Your task to perform on an android device: What's the weather going to be tomorrow? Image 0: 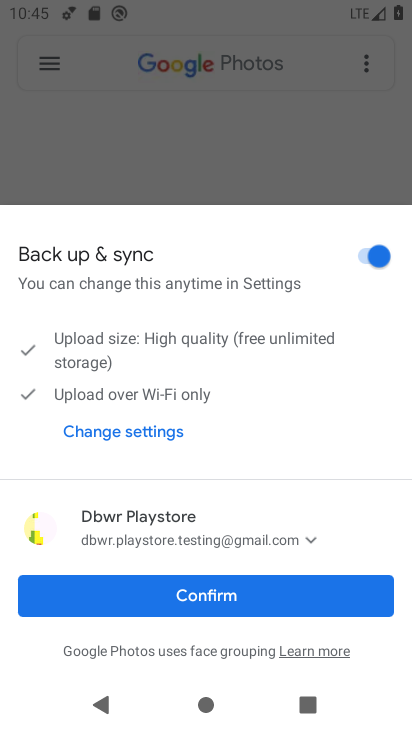
Step 0: press home button
Your task to perform on an android device: What's the weather going to be tomorrow? Image 1: 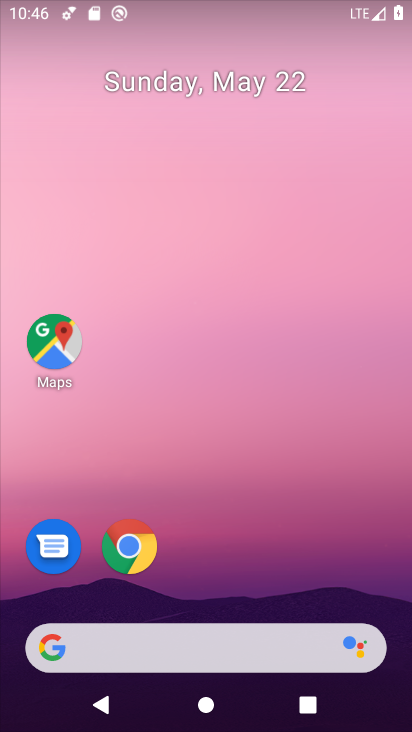
Step 1: drag from (217, 632) to (7, 483)
Your task to perform on an android device: What's the weather going to be tomorrow? Image 2: 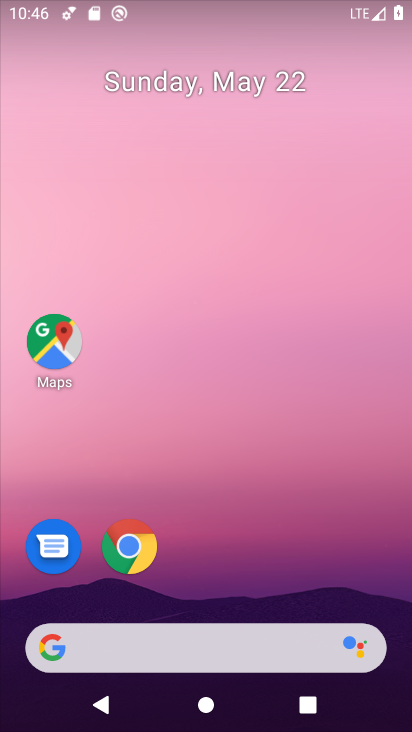
Step 2: drag from (239, 653) to (299, 34)
Your task to perform on an android device: What's the weather going to be tomorrow? Image 3: 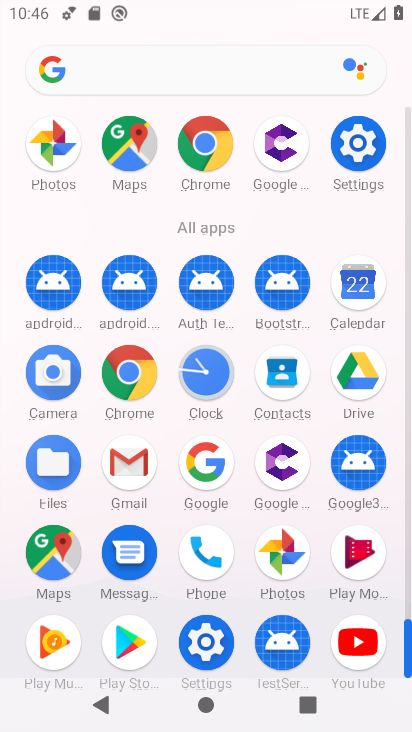
Step 3: click (222, 470)
Your task to perform on an android device: What's the weather going to be tomorrow? Image 4: 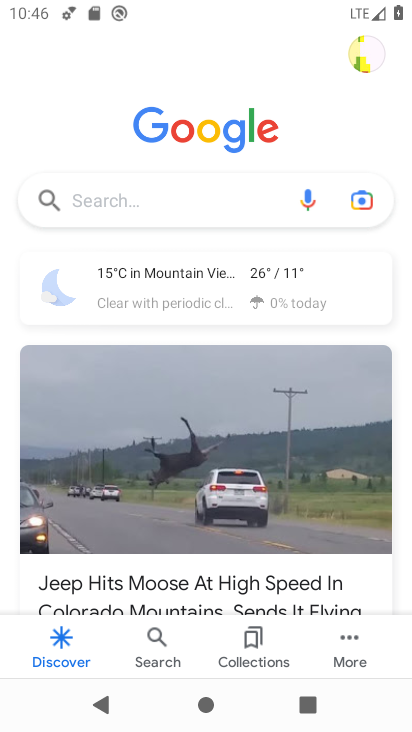
Step 4: click (201, 200)
Your task to perform on an android device: What's the weather going to be tomorrow? Image 5: 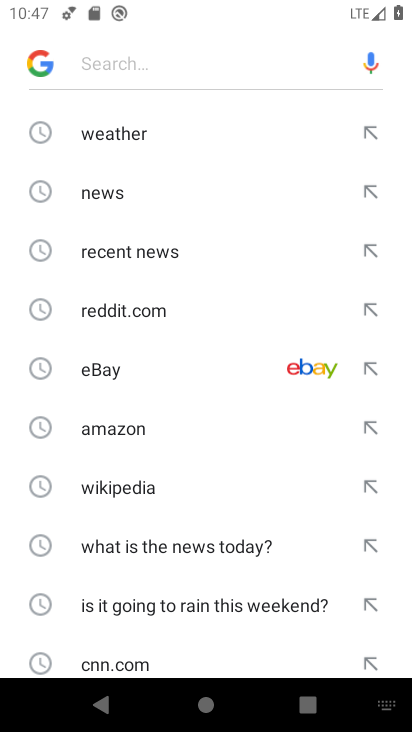
Step 5: click (270, 135)
Your task to perform on an android device: What's the weather going to be tomorrow? Image 6: 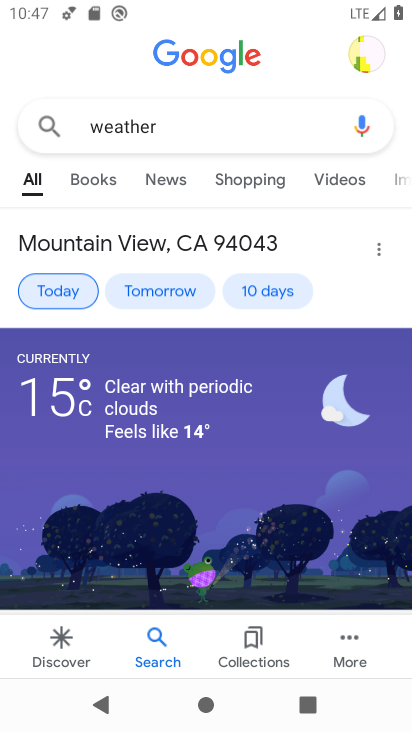
Step 6: click (167, 299)
Your task to perform on an android device: What's the weather going to be tomorrow? Image 7: 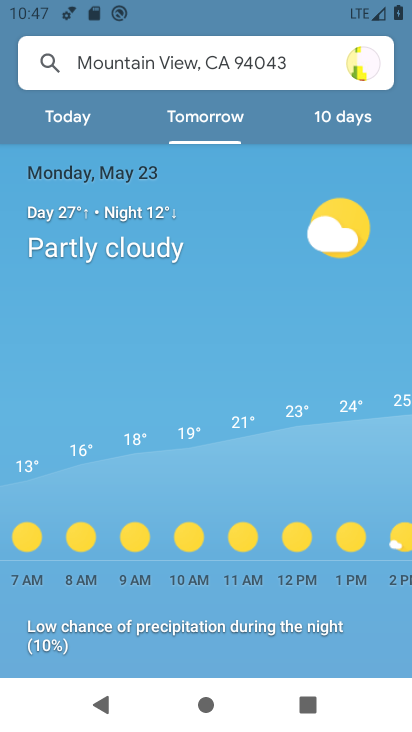
Step 7: task complete